Your task to perform on an android device: Go to notification settings Image 0: 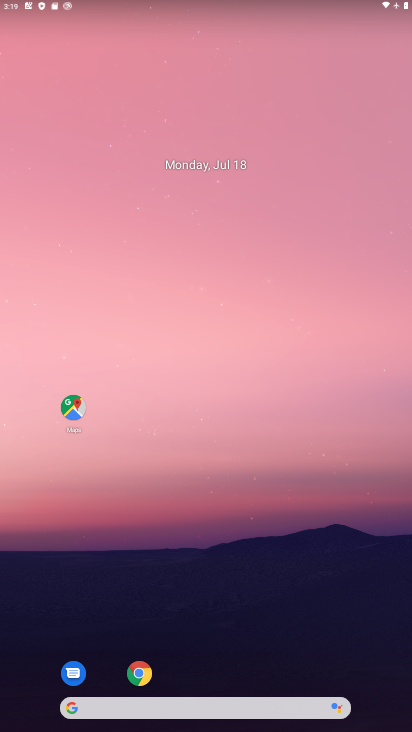
Step 0: drag from (350, 646) to (335, 347)
Your task to perform on an android device: Go to notification settings Image 1: 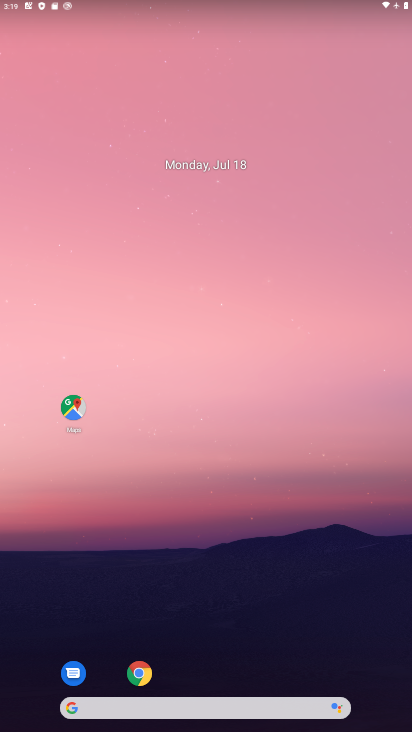
Step 1: drag from (195, 627) to (304, 174)
Your task to perform on an android device: Go to notification settings Image 2: 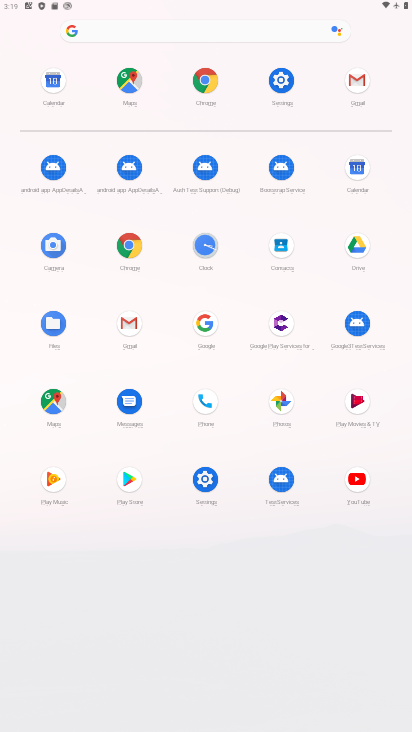
Step 2: click (265, 76)
Your task to perform on an android device: Go to notification settings Image 3: 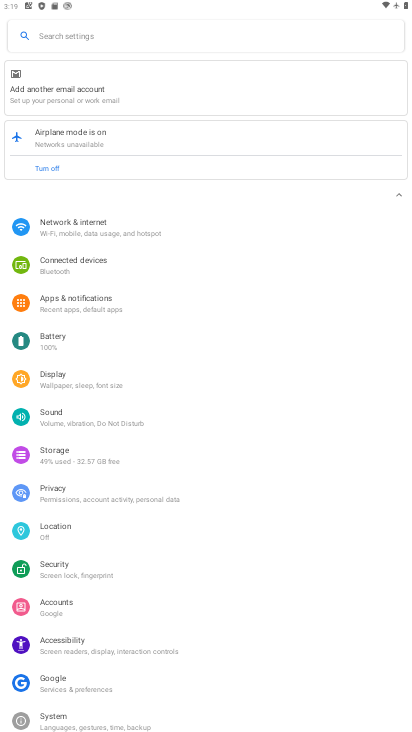
Step 3: click (91, 308)
Your task to perform on an android device: Go to notification settings Image 4: 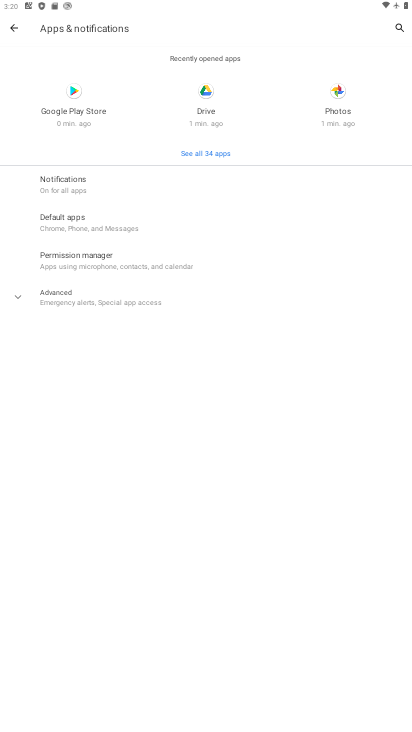
Step 4: click (71, 173)
Your task to perform on an android device: Go to notification settings Image 5: 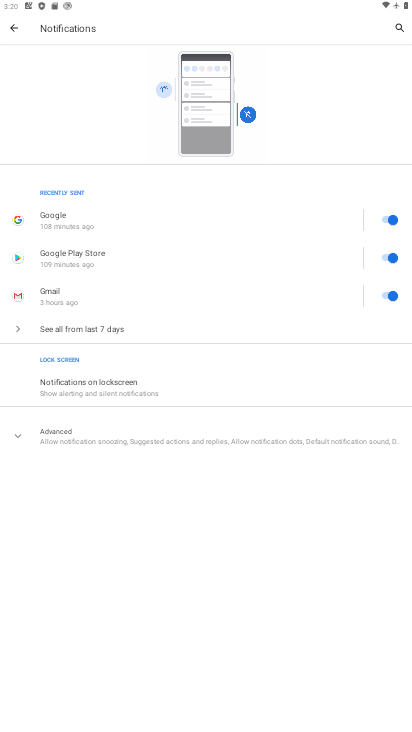
Step 5: task complete